Your task to perform on an android device: Open the calendar and show me this week's events? Image 0: 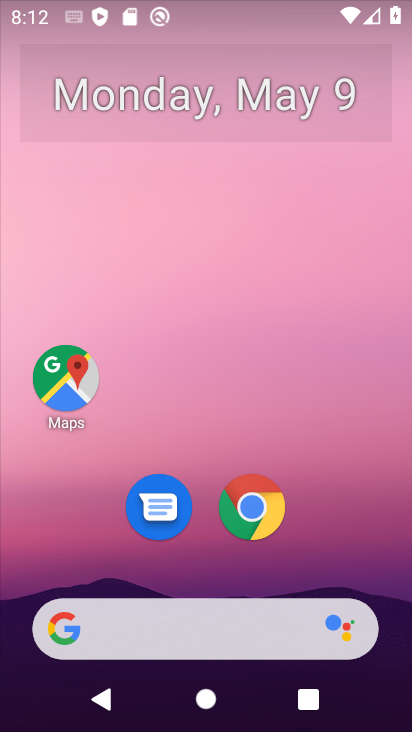
Step 0: drag from (223, 610) to (402, 474)
Your task to perform on an android device: Open the calendar and show me this week's events? Image 1: 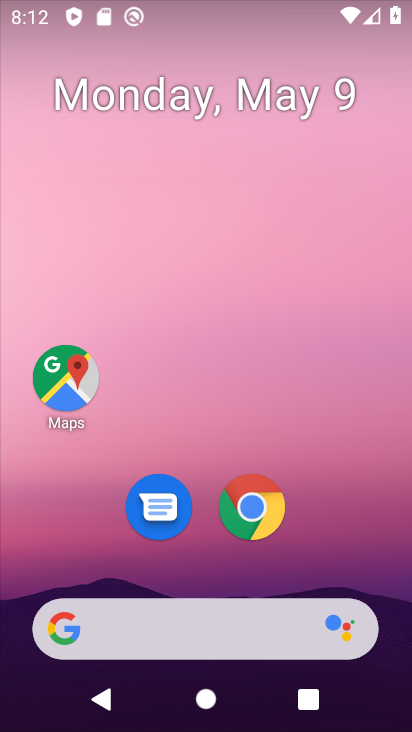
Step 1: drag from (59, 439) to (50, 18)
Your task to perform on an android device: Open the calendar and show me this week's events? Image 2: 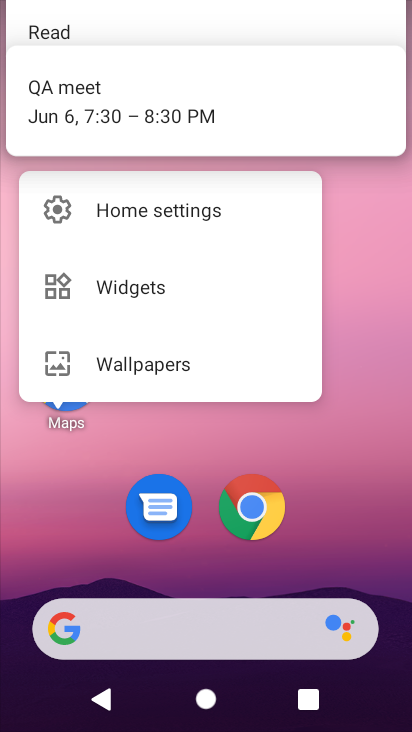
Step 2: drag from (193, 560) to (183, 0)
Your task to perform on an android device: Open the calendar and show me this week's events? Image 3: 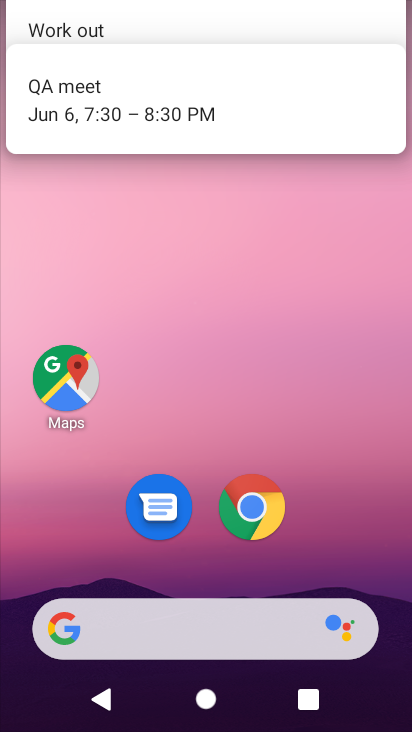
Step 3: drag from (221, 589) to (242, 26)
Your task to perform on an android device: Open the calendar and show me this week's events? Image 4: 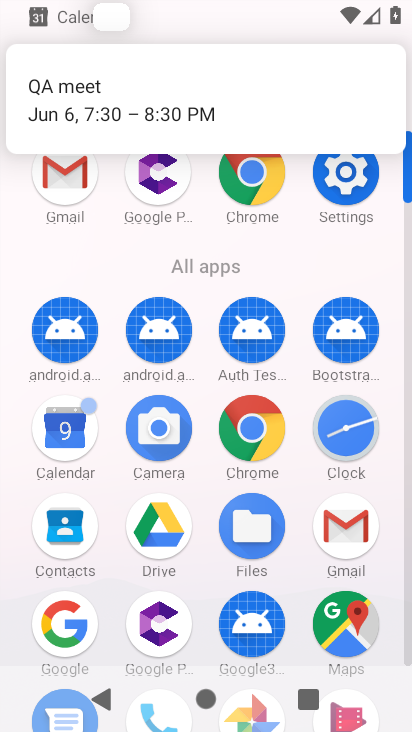
Step 4: click (66, 447)
Your task to perform on an android device: Open the calendar and show me this week's events? Image 5: 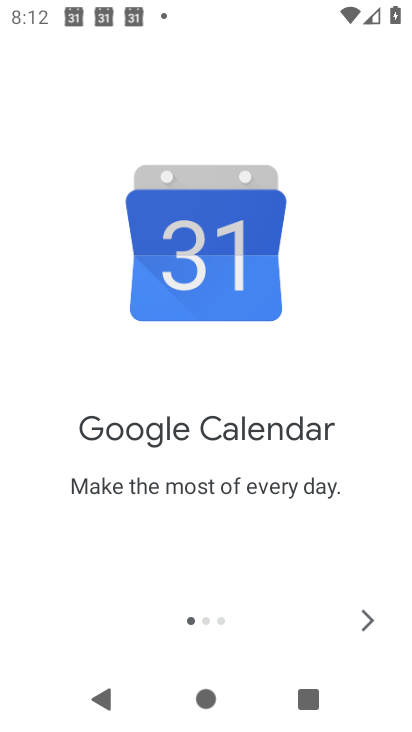
Step 5: click (370, 629)
Your task to perform on an android device: Open the calendar and show me this week's events? Image 6: 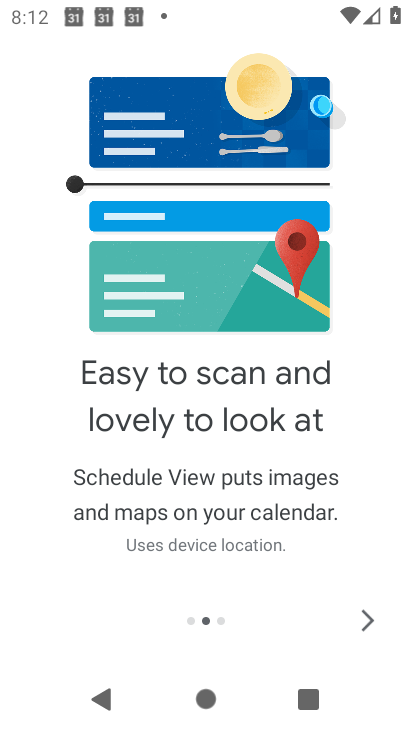
Step 6: click (370, 629)
Your task to perform on an android device: Open the calendar and show me this week's events? Image 7: 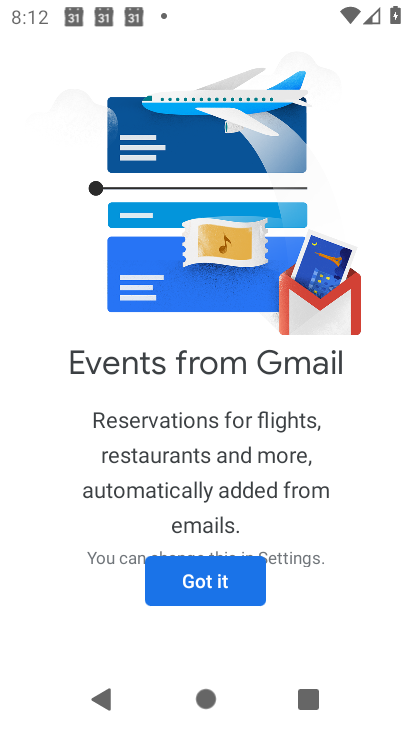
Step 7: click (229, 586)
Your task to perform on an android device: Open the calendar and show me this week's events? Image 8: 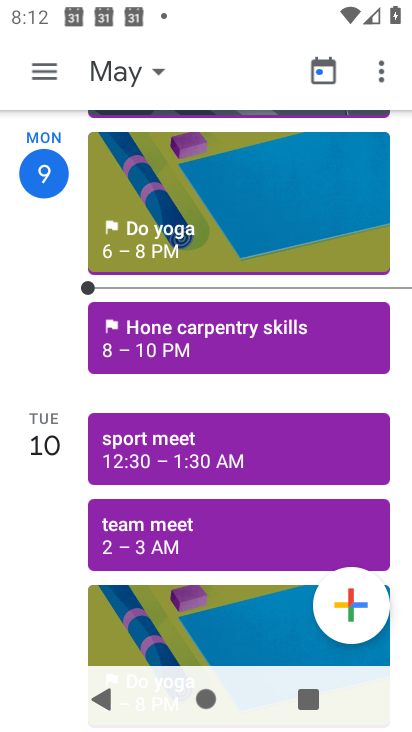
Step 8: click (49, 65)
Your task to perform on an android device: Open the calendar and show me this week's events? Image 9: 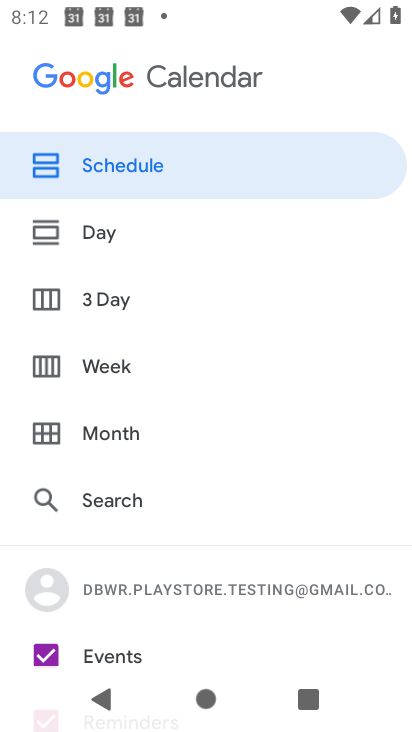
Step 9: click (102, 350)
Your task to perform on an android device: Open the calendar and show me this week's events? Image 10: 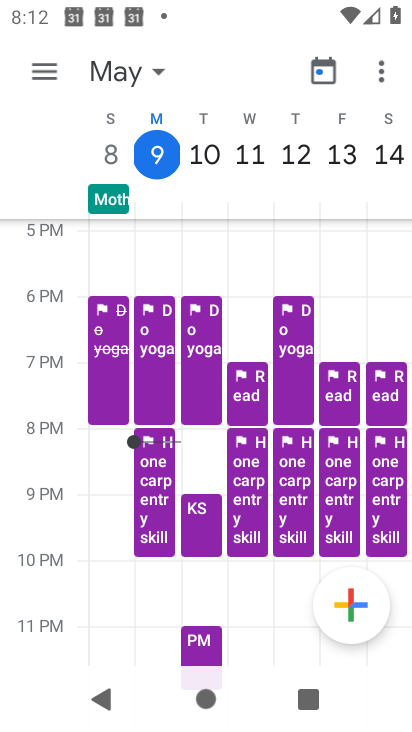
Step 10: task complete